Your task to perform on an android device: add a contact Image 0: 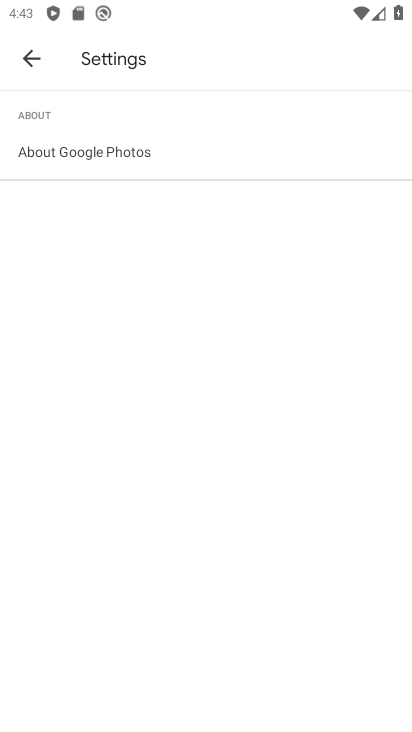
Step 0: press home button
Your task to perform on an android device: add a contact Image 1: 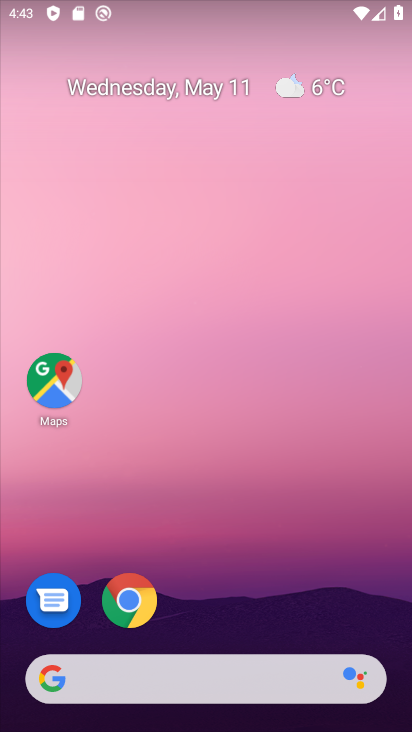
Step 1: press home button
Your task to perform on an android device: add a contact Image 2: 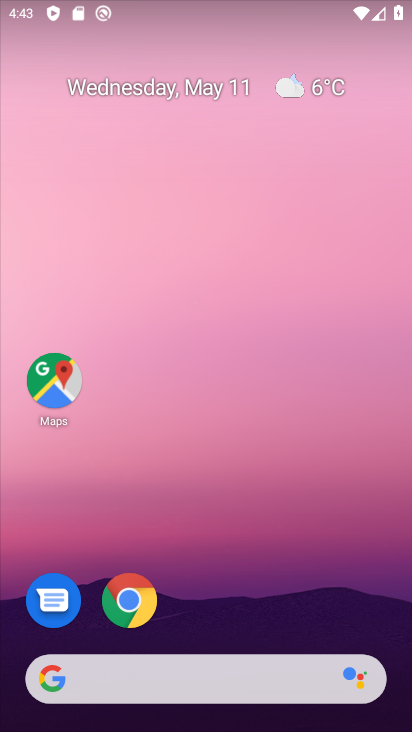
Step 2: drag from (316, 543) to (195, 55)
Your task to perform on an android device: add a contact Image 3: 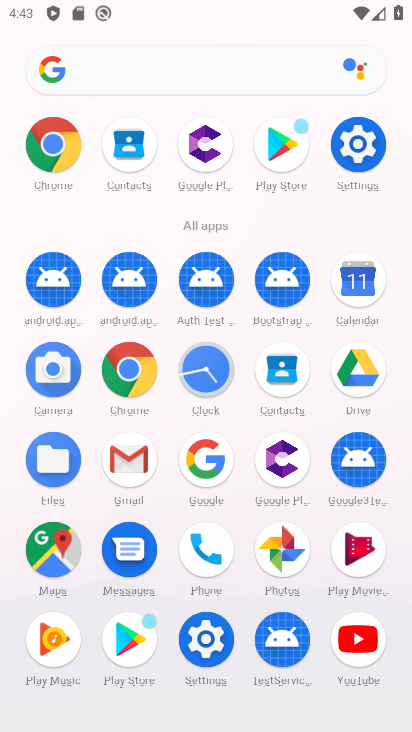
Step 3: click (274, 361)
Your task to perform on an android device: add a contact Image 4: 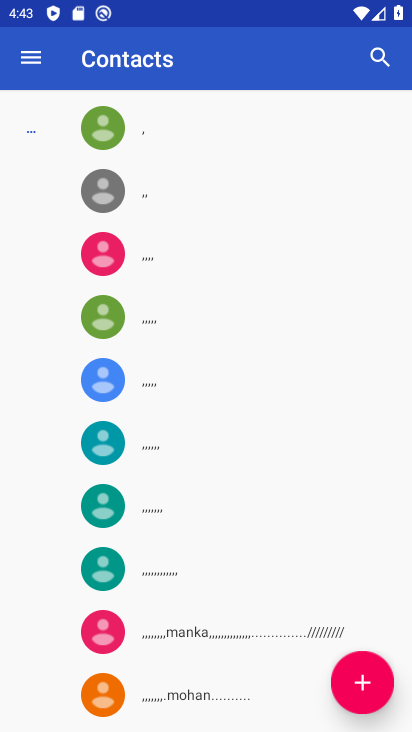
Step 4: click (362, 670)
Your task to perform on an android device: add a contact Image 5: 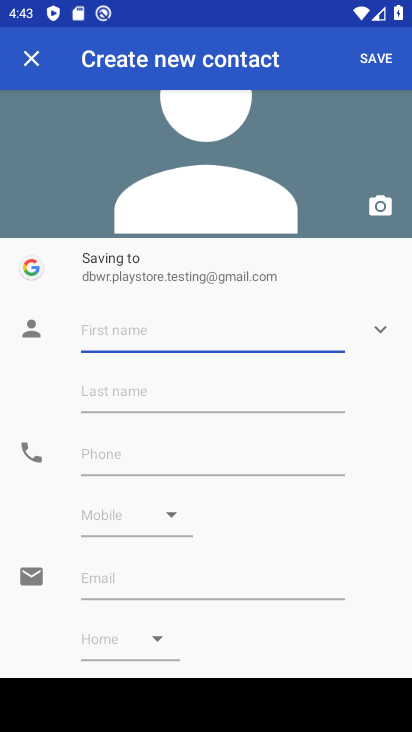
Step 5: click (161, 327)
Your task to perform on an android device: add a contact Image 6: 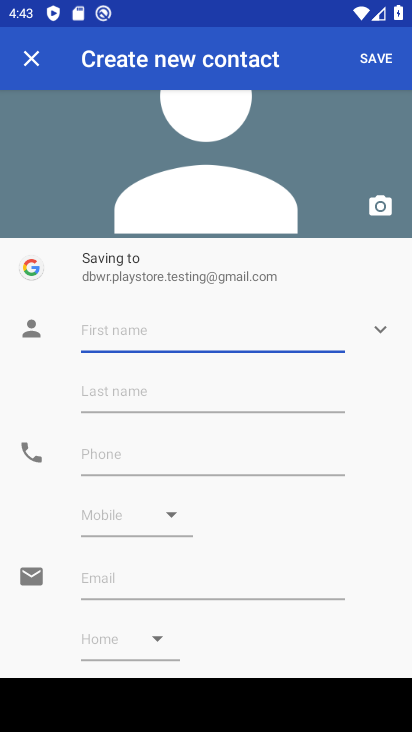
Step 6: type "ogg"
Your task to perform on an android device: add a contact Image 7: 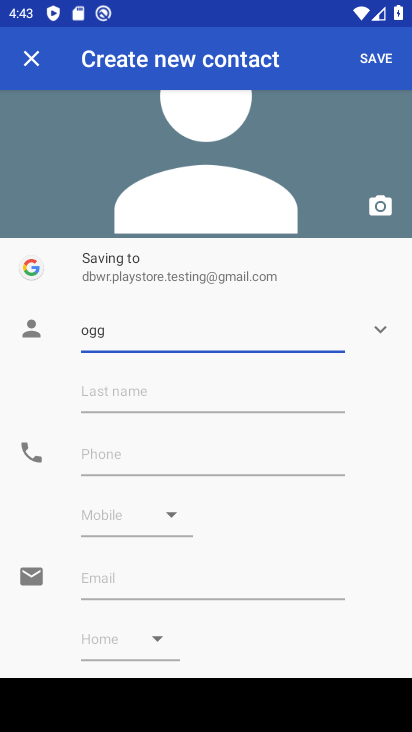
Step 7: click (386, 56)
Your task to perform on an android device: add a contact Image 8: 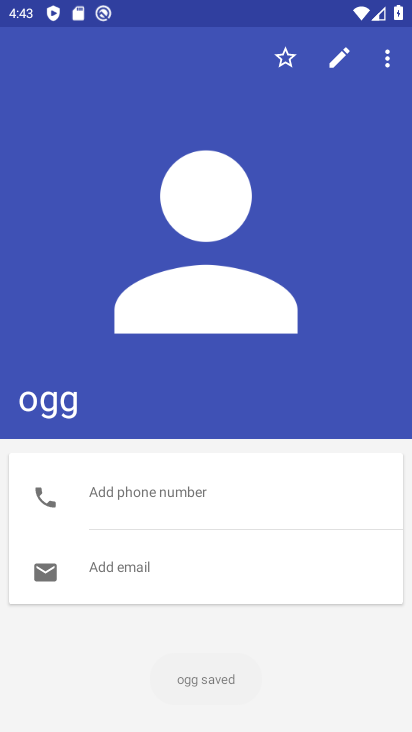
Step 8: task complete